Your task to perform on an android device: Open Google Chrome Image 0: 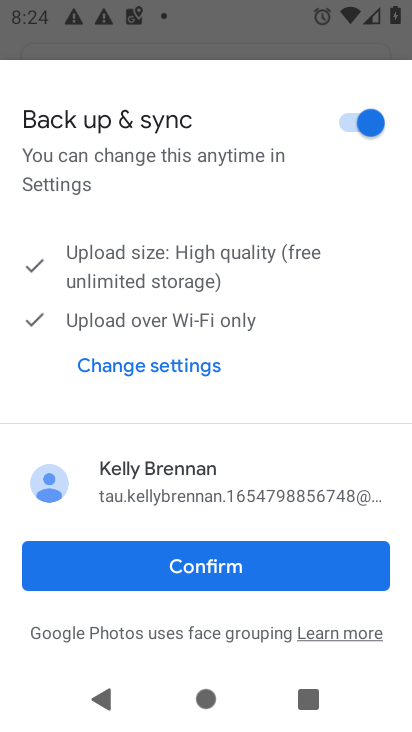
Step 0: press home button
Your task to perform on an android device: Open Google Chrome Image 1: 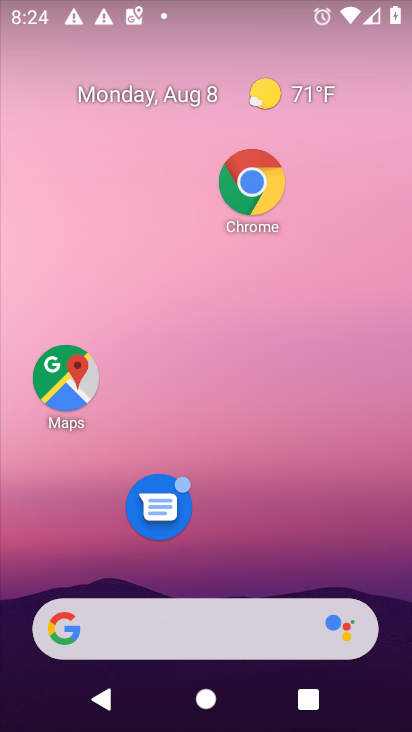
Step 1: click (242, 186)
Your task to perform on an android device: Open Google Chrome Image 2: 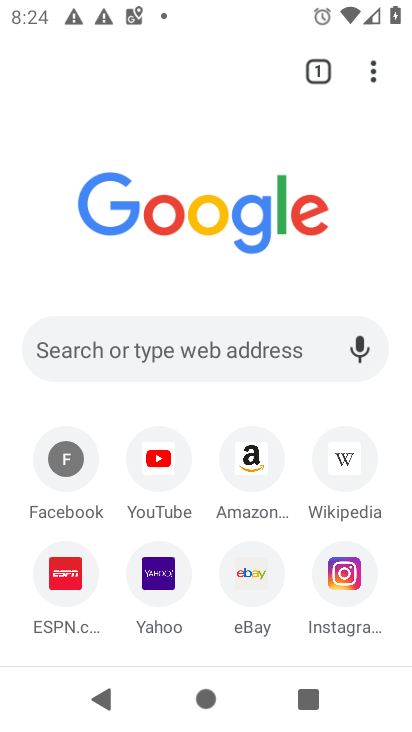
Step 2: task complete